Your task to perform on an android device: turn notification dots on Image 0: 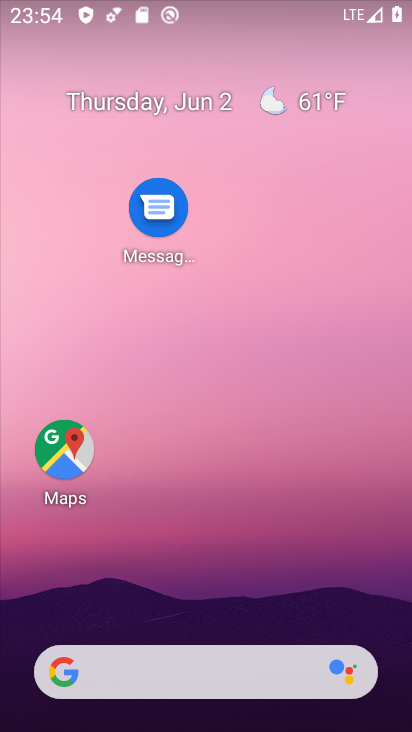
Step 0: drag from (218, 630) to (220, 53)
Your task to perform on an android device: turn notification dots on Image 1: 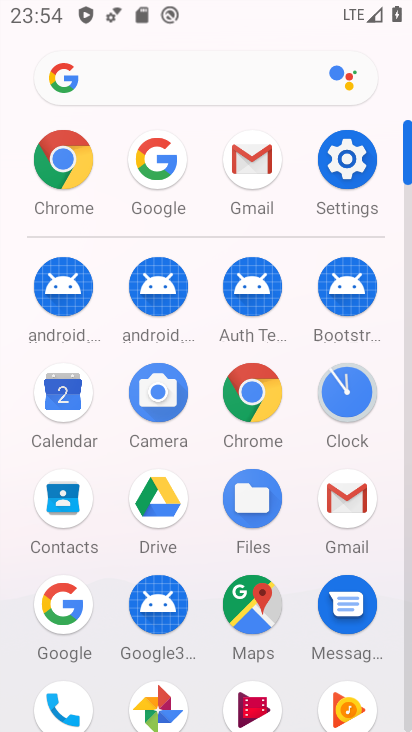
Step 1: click (332, 165)
Your task to perform on an android device: turn notification dots on Image 2: 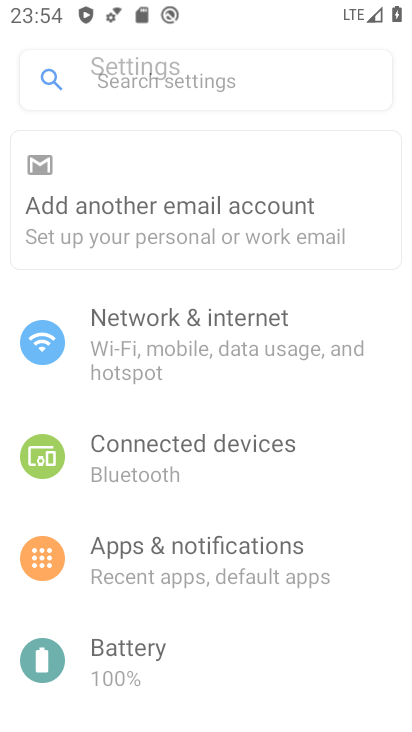
Step 2: click (138, 604)
Your task to perform on an android device: turn notification dots on Image 3: 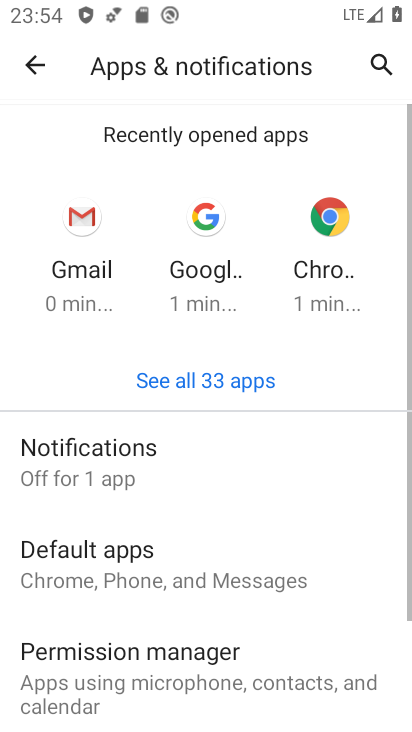
Step 3: click (170, 468)
Your task to perform on an android device: turn notification dots on Image 4: 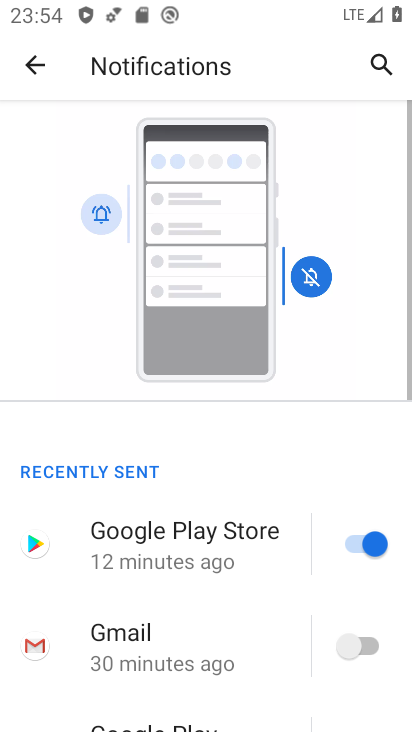
Step 4: drag from (199, 588) to (155, 44)
Your task to perform on an android device: turn notification dots on Image 5: 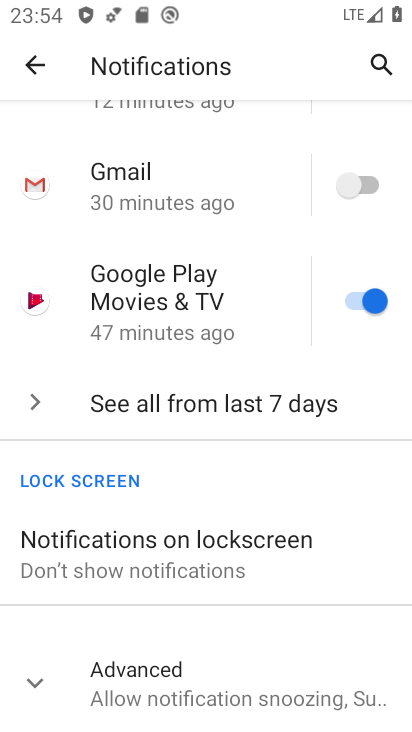
Step 5: click (222, 661)
Your task to perform on an android device: turn notification dots on Image 6: 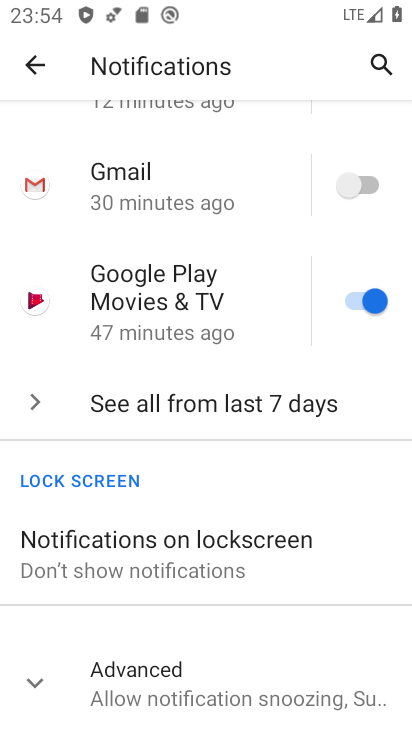
Step 6: drag from (222, 661) to (215, 0)
Your task to perform on an android device: turn notification dots on Image 7: 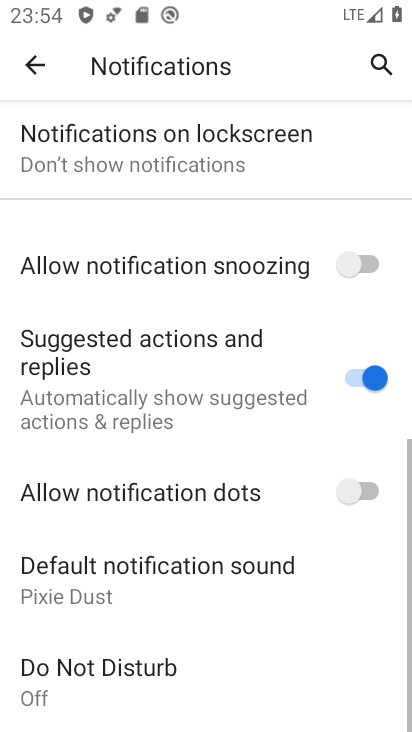
Step 7: click (350, 501)
Your task to perform on an android device: turn notification dots on Image 8: 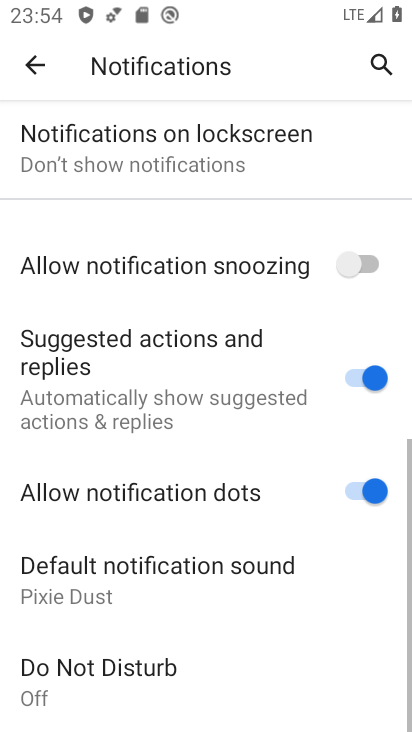
Step 8: task complete